Your task to perform on an android device: Play the last video I watched on Youtube Image 0: 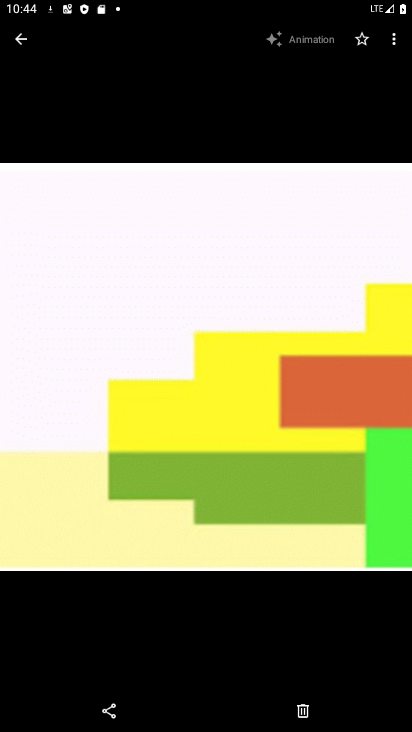
Step 0: press home button
Your task to perform on an android device: Play the last video I watched on Youtube Image 1: 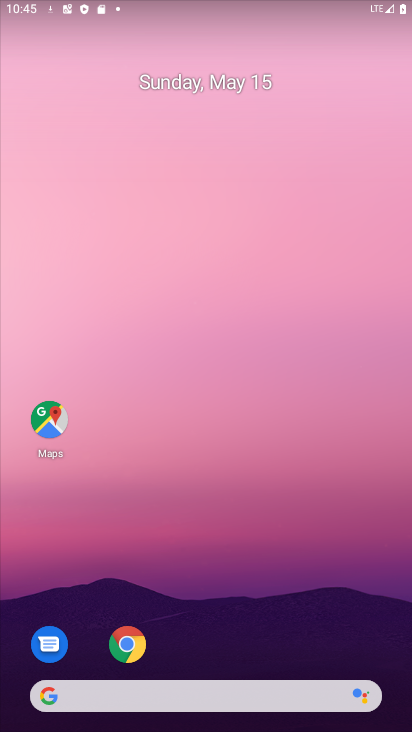
Step 1: drag from (276, 690) to (300, 291)
Your task to perform on an android device: Play the last video I watched on Youtube Image 2: 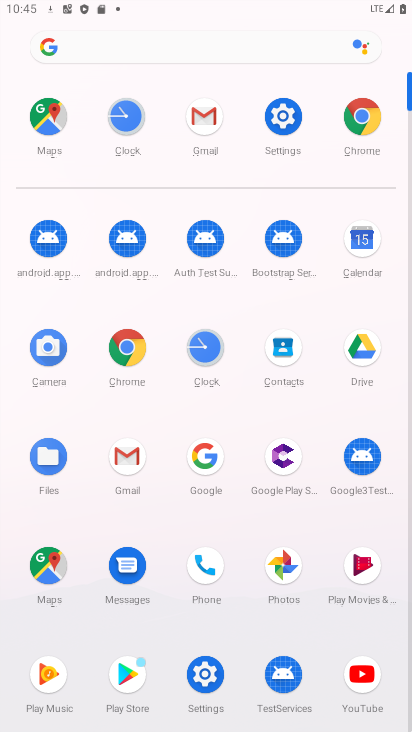
Step 2: click (367, 679)
Your task to perform on an android device: Play the last video I watched on Youtube Image 3: 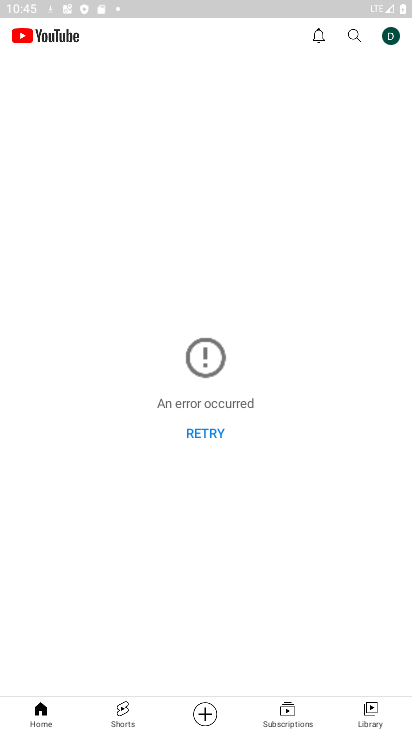
Step 3: click (374, 703)
Your task to perform on an android device: Play the last video I watched on Youtube Image 4: 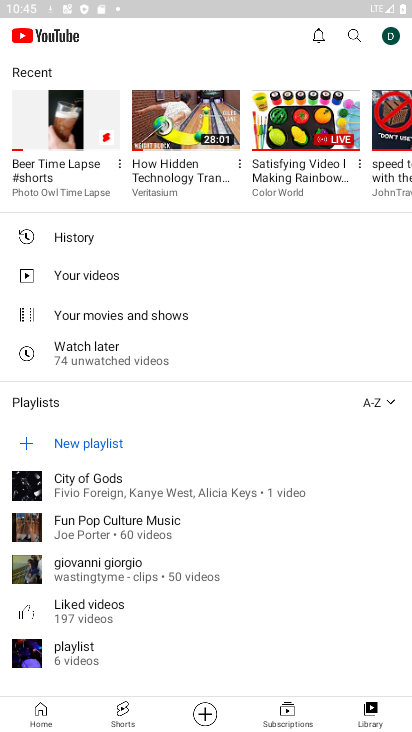
Step 4: click (60, 147)
Your task to perform on an android device: Play the last video I watched on Youtube Image 5: 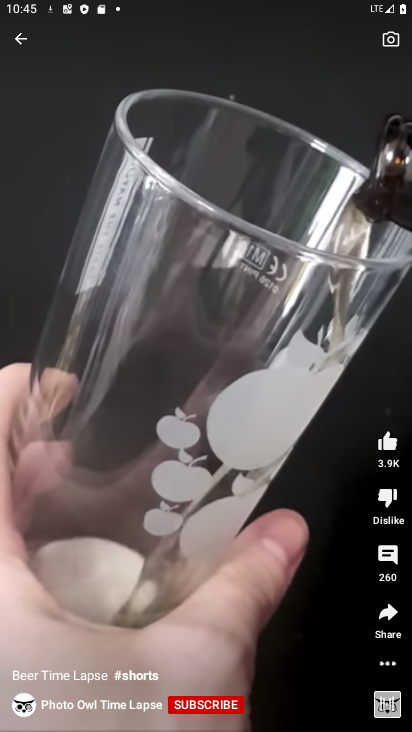
Step 5: task complete